Your task to perform on an android device: Go to Google Image 0: 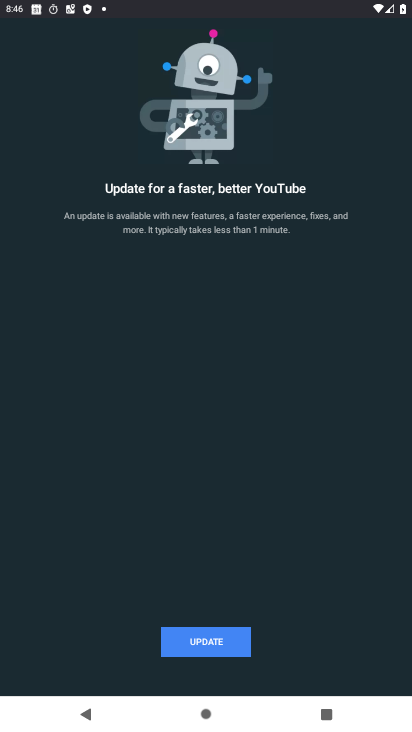
Step 0: press home button
Your task to perform on an android device: Go to Google Image 1: 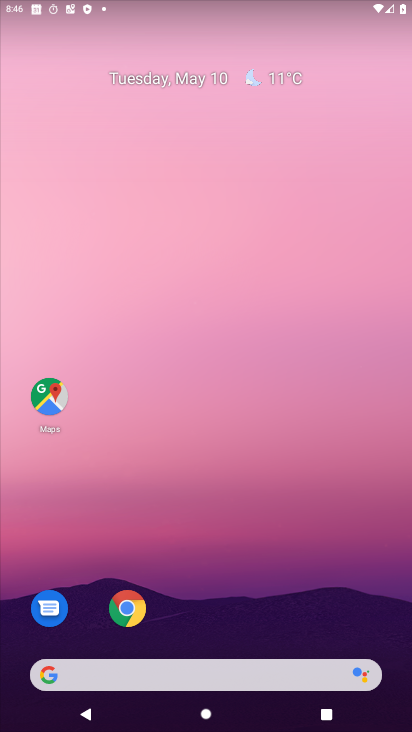
Step 1: drag from (211, 661) to (183, 80)
Your task to perform on an android device: Go to Google Image 2: 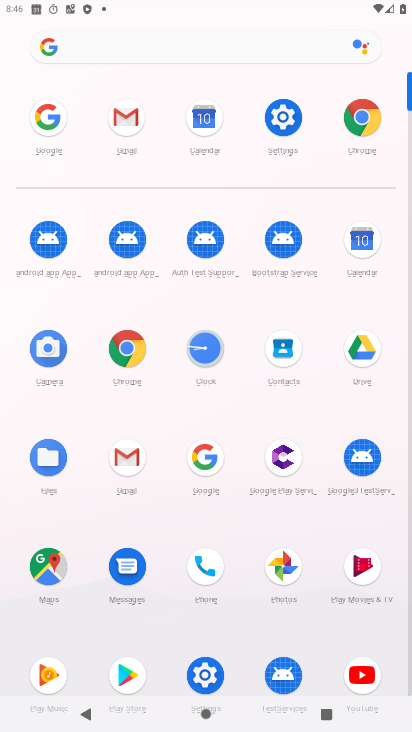
Step 2: click (218, 455)
Your task to perform on an android device: Go to Google Image 3: 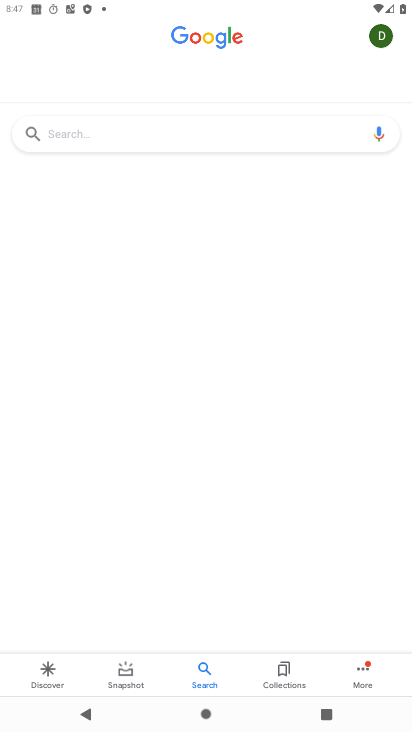
Step 3: task complete